Your task to perform on an android device: Open Youtube and go to the subscriptions tab Image 0: 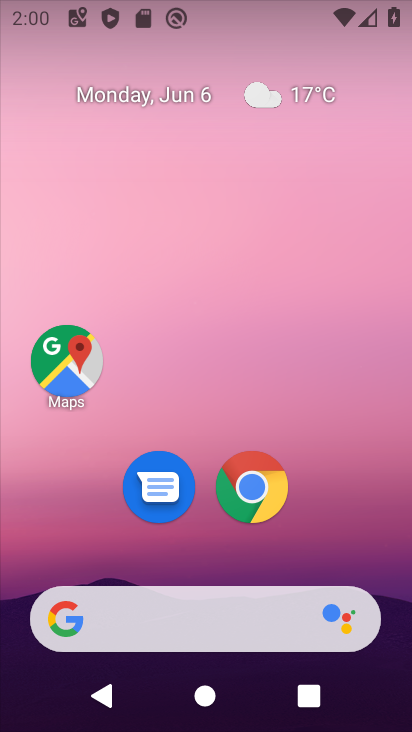
Step 0: drag from (100, 559) to (161, 177)
Your task to perform on an android device: Open Youtube and go to the subscriptions tab Image 1: 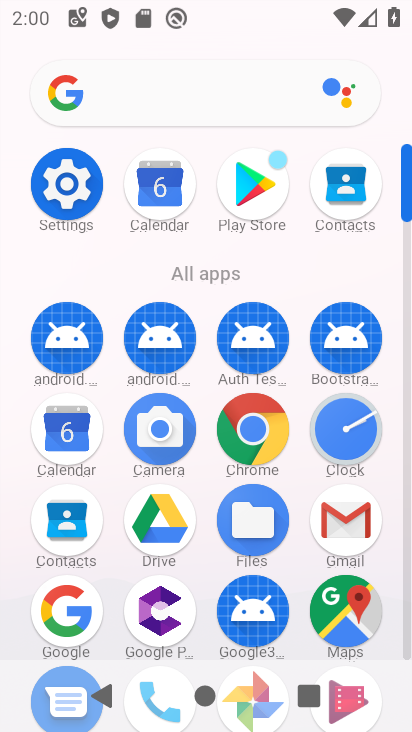
Step 1: drag from (180, 534) to (226, 298)
Your task to perform on an android device: Open Youtube and go to the subscriptions tab Image 2: 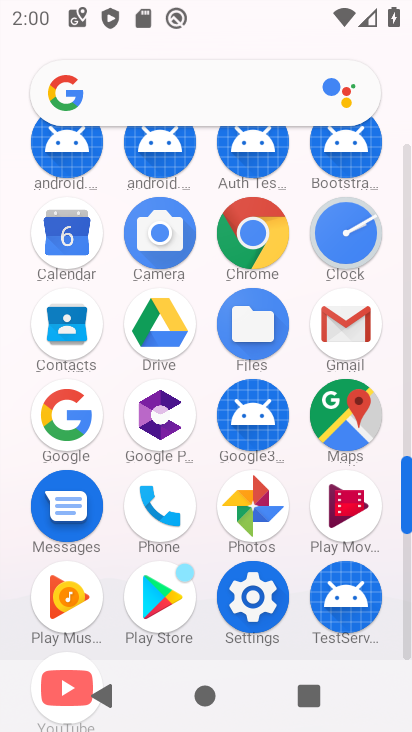
Step 2: drag from (123, 630) to (215, 352)
Your task to perform on an android device: Open Youtube and go to the subscriptions tab Image 3: 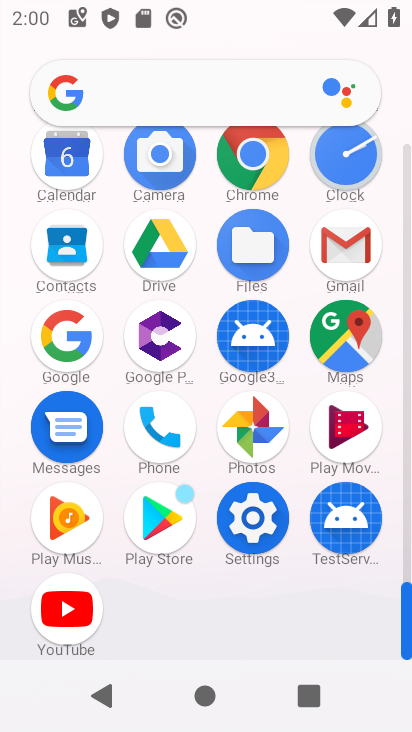
Step 3: click (79, 623)
Your task to perform on an android device: Open Youtube and go to the subscriptions tab Image 4: 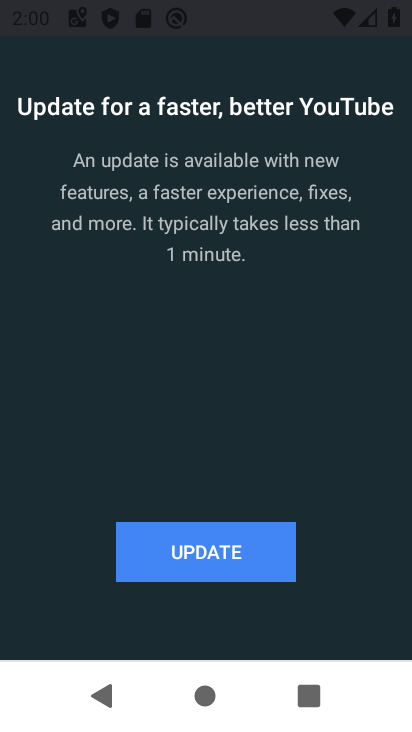
Step 4: click (243, 563)
Your task to perform on an android device: Open Youtube and go to the subscriptions tab Image 5: 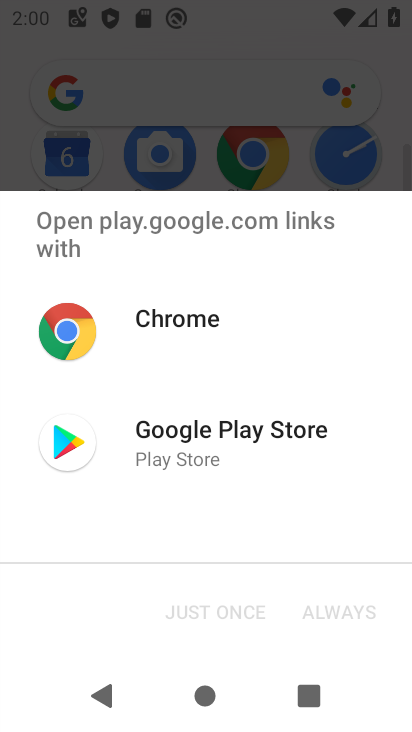
Step 5: click (254, 450)
Your task to perform on an android device: Open Youtube and go to the subscriptions tab Image 6: 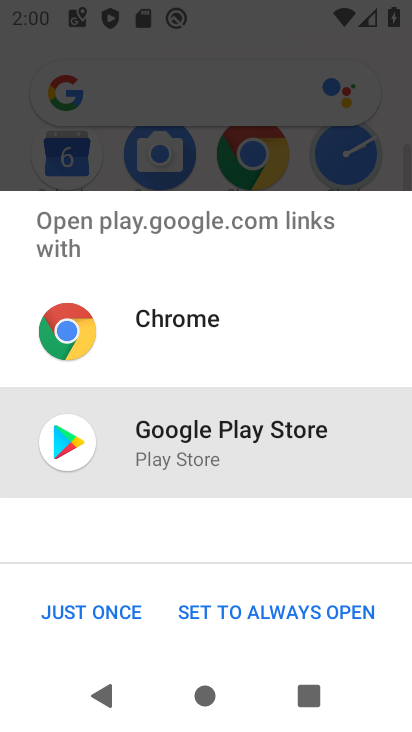
Step 6: click (122, 617)
Your task to perform on an android device: Open Youtube and go to the subscriptions tab Image 7: 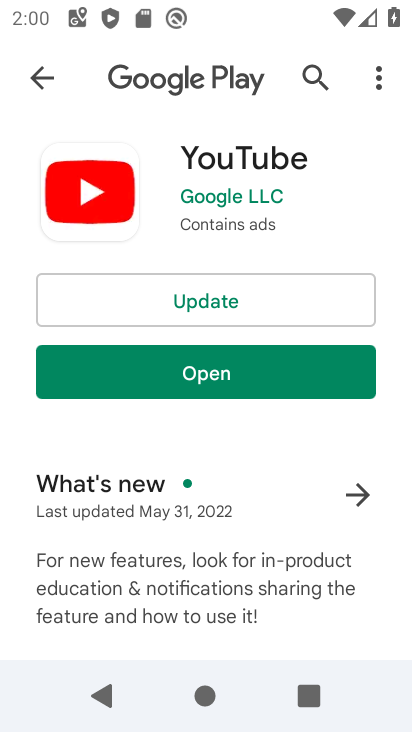
Step 7: click (267, 303)
Your task to perform on an android device: Open Youtube and go to the subscriptions tab Image 8: 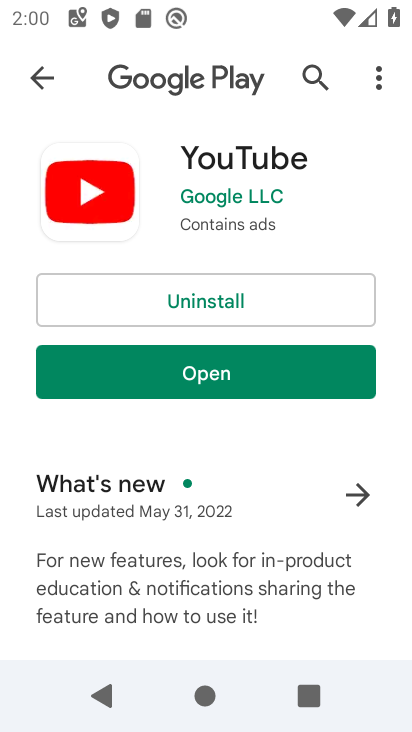
Step 8: click (186, 357)
Your task to perform on an android device: Open Youtube and go to the subscriptions tab Image 9: 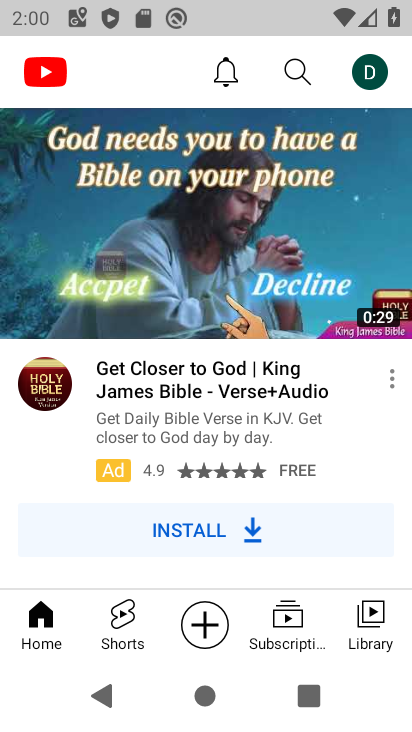
Step 9: click (293, 646)
Your task to perform on an android device: Open Youtube and go to the subscriptions tab Image 10: 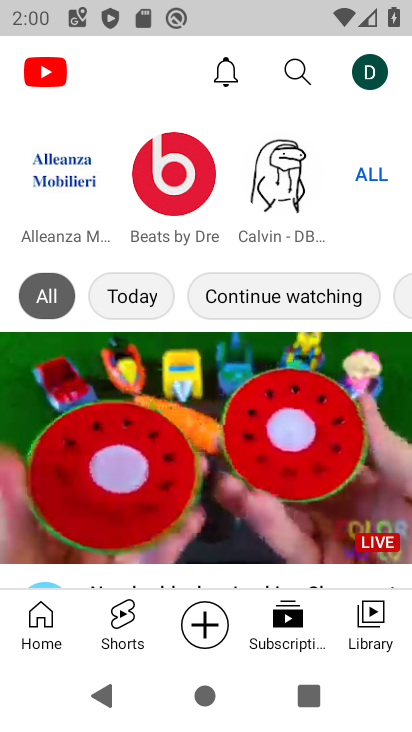
Step 10: task complete